Your task to perform on an android device: empty trash in google photos Image 0: 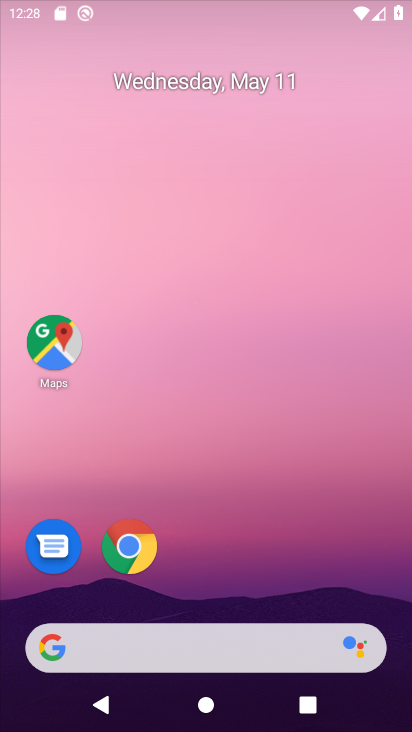
Step 0: drag from (240, 593) to (269, 255)
Your task to perform on an android device: empty trash in google photos Image 1: 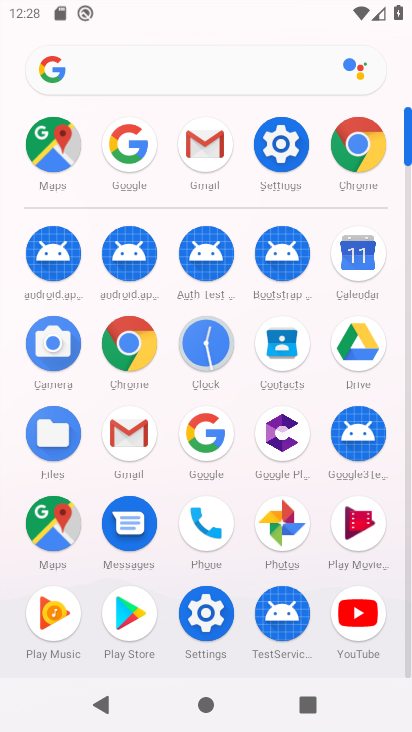
Step 1: click (272, 514)
Your task to perform on an android device: empty trash in google photos Image 2: 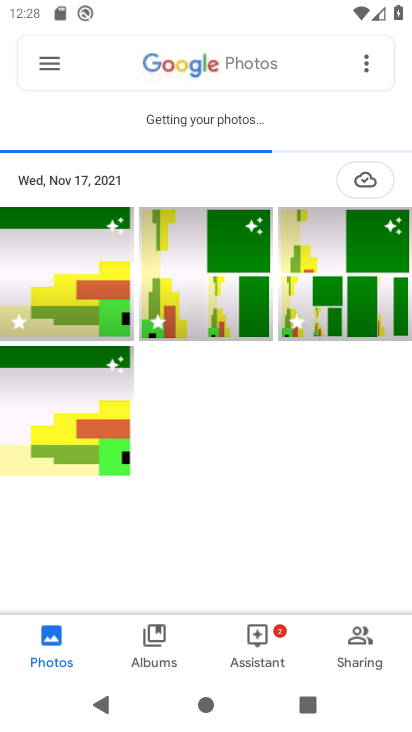
Step 2: click (47, 58)
Your task to perform on an android device: empty trash in google photos Image 3: 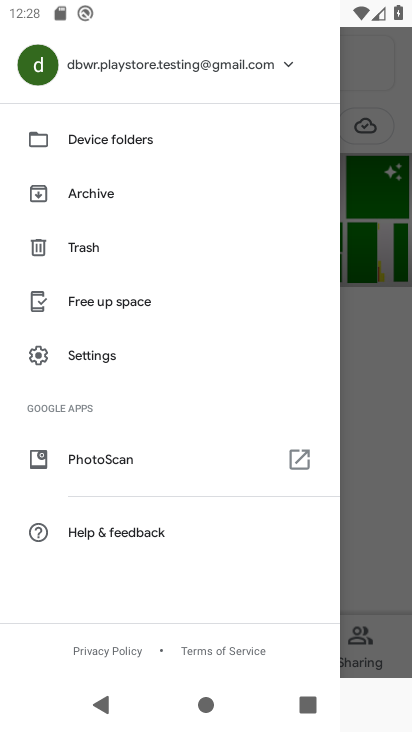
Step 3: click (92, 252)
Your task to perform on an android device: empty trash in google photos Image 4: 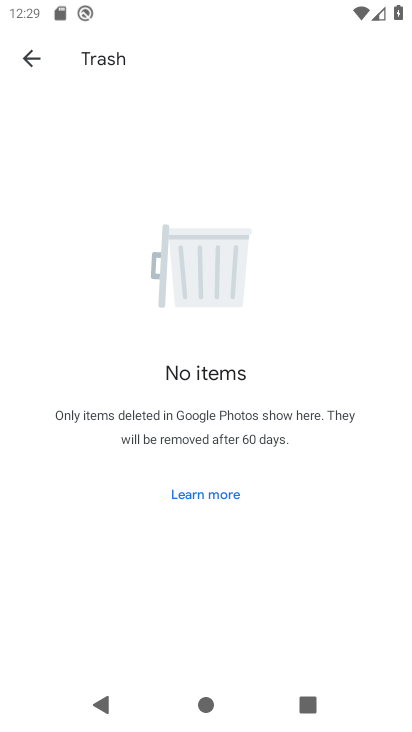
Step 4: task complete